Your task to perform on an android device: Search for pizza restaurants on Maps Image 0: 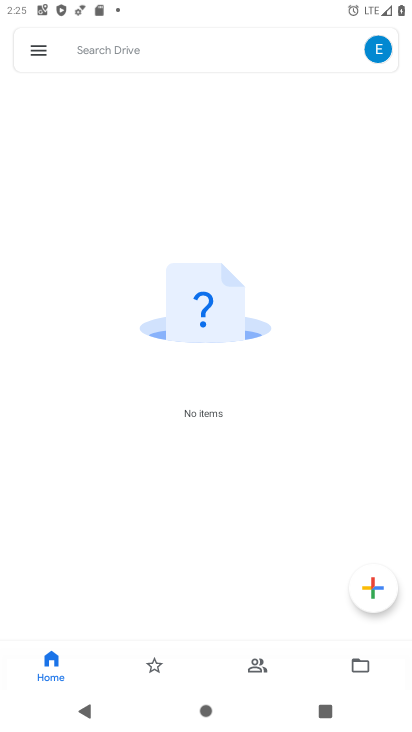
Step 0: press home button
Your task to perform on an android device: Search for pizza restaurants on Maps Image 1: 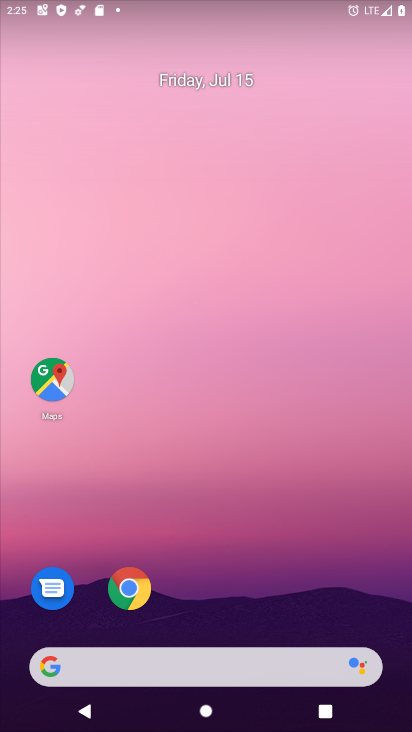
Step 1: click (51, 377)
Your task to perform on an android device: Search for pizza restaurants on Maps Image 2: 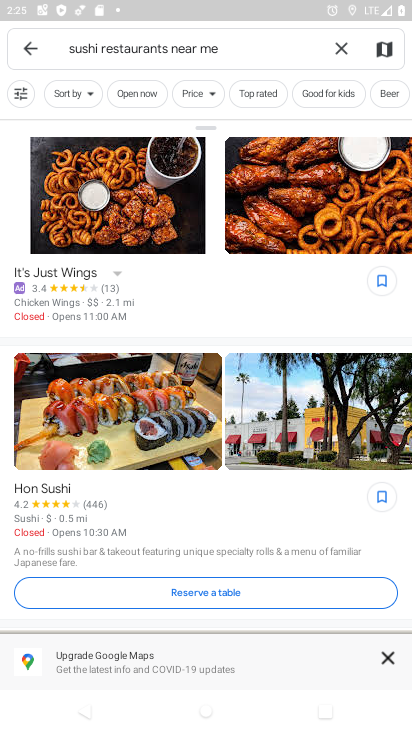
Step 2: click (346, 47)
Your task to perform on an android device: Search for pizza restaurants on Maps Image 3: 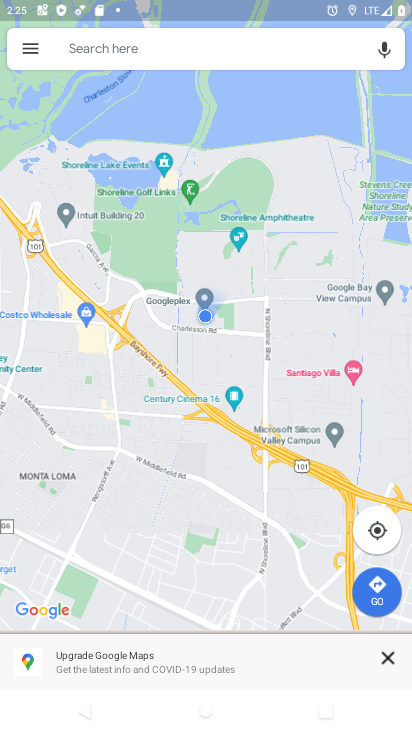
Step 3: click (265, 48)
Your task to perform on an android device: Search for pizza restaurants on Maps Image 4: 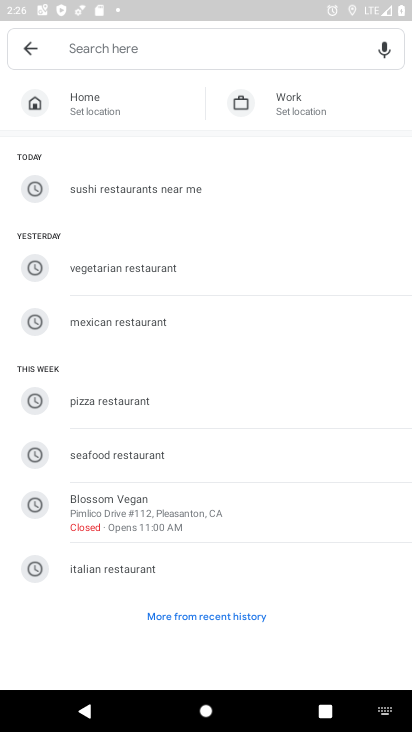
Step 4: type "pizza restaurants"
Your task to perform on an android device: Search for pizza restaurants on Maps Image 5: 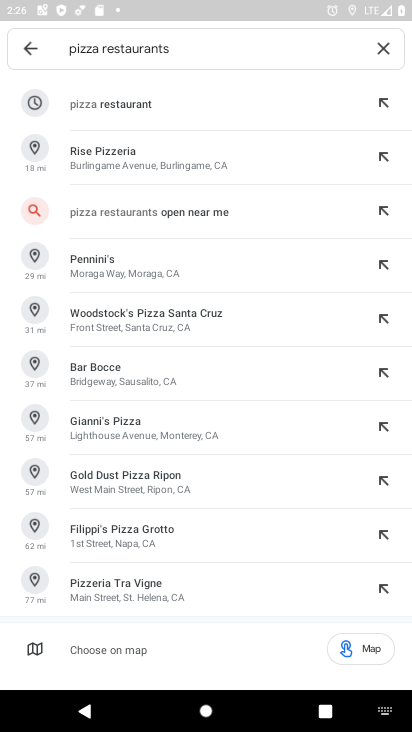
Step 5: click (95, 103)
Your task to perform on an android device: Search for pizza restaurants on Maps Image 6: 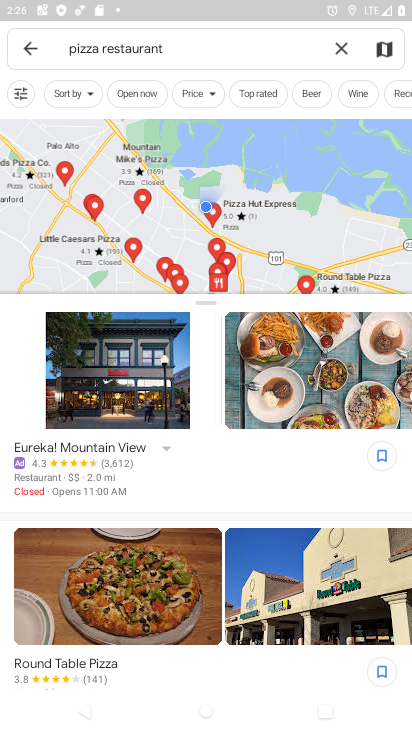
Step 6: task complete